Your task to perform on an android device: Open Reddit.com Image 0: 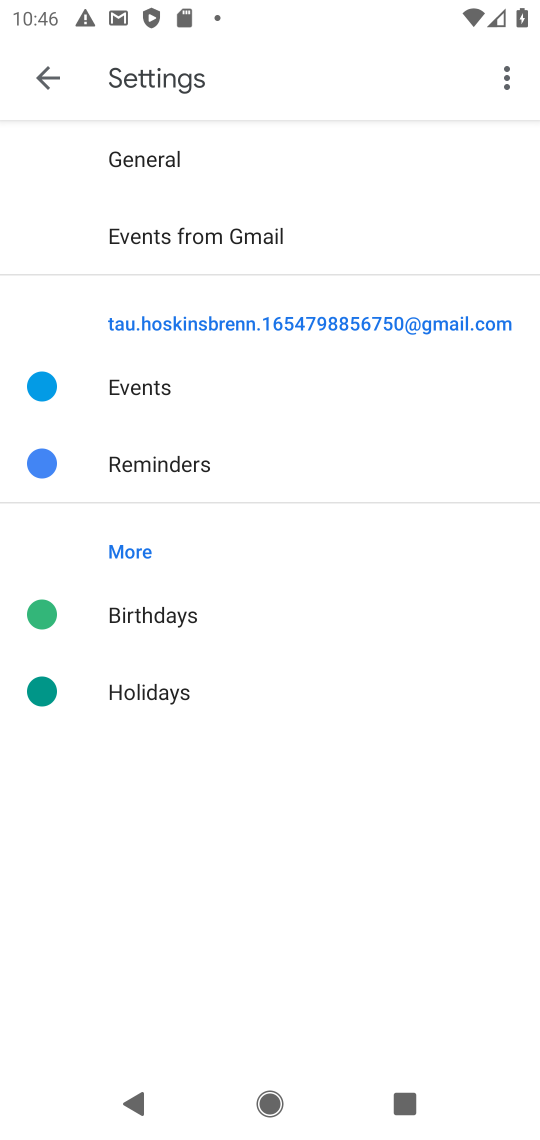
Step 0: press home button
Your task to perform on an android device: Open Reddit.com Image 1: 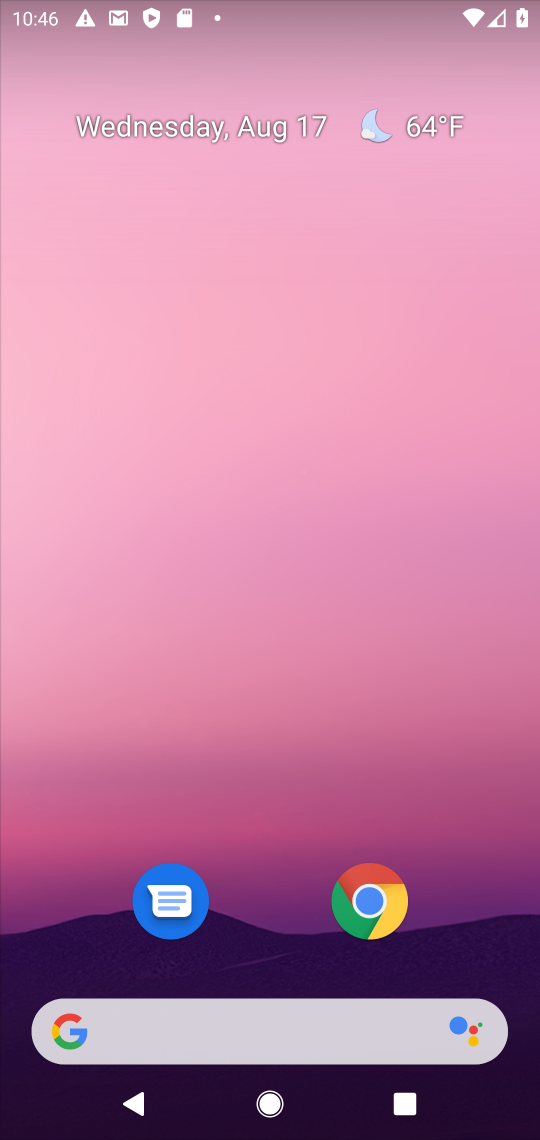
Step 1: click (69, 1034)
Your task to perform on an android device: Open Reddit.com Image 2: 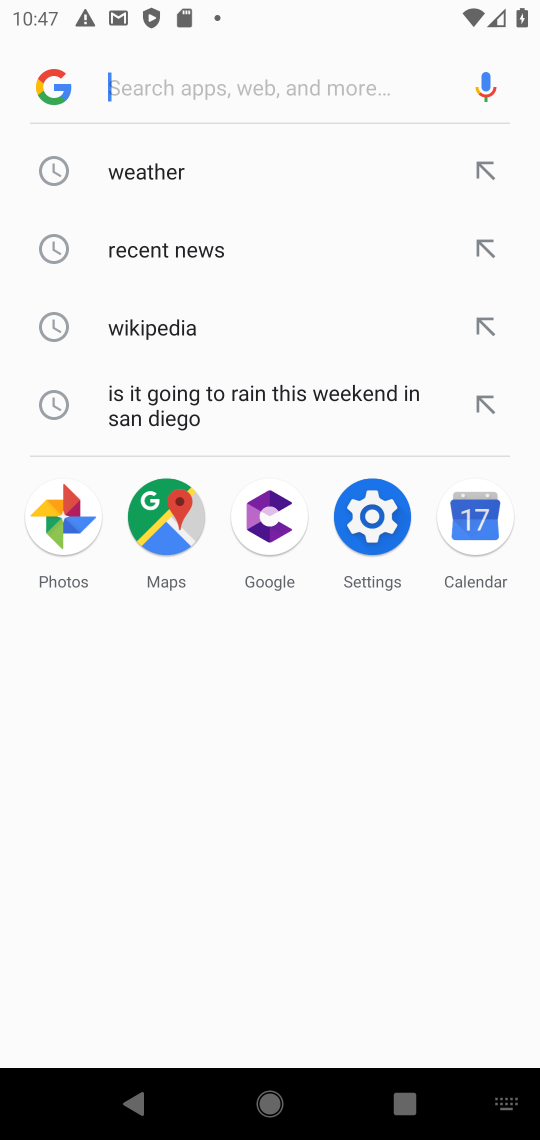
Step 2: type " Reddit.com"
Your task to perform on an android device: Open Reddit.com Image 3: 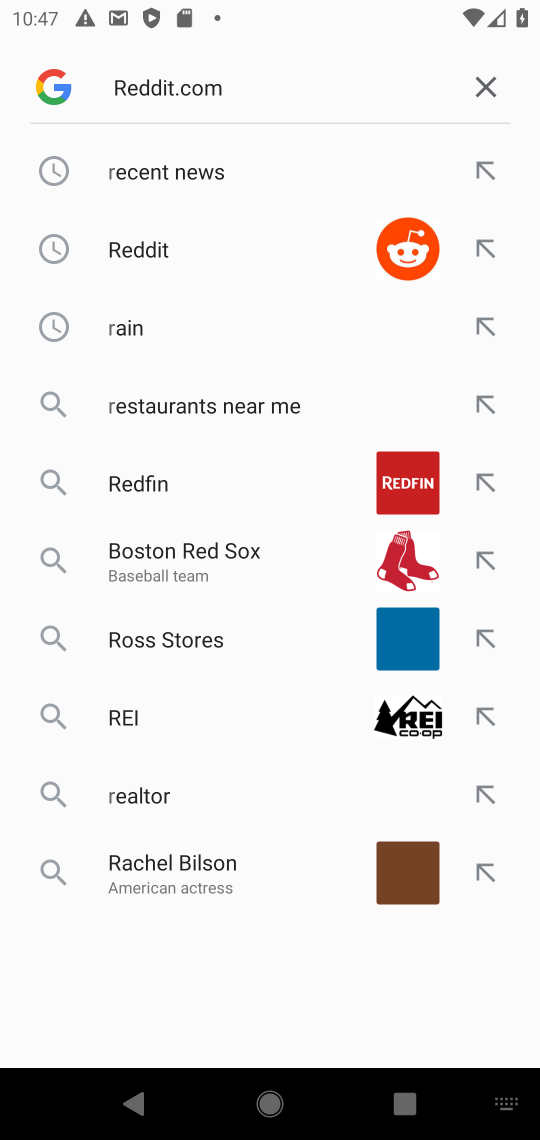
Step 3: press enter
Your task to perform on an android device: Open Reddit.com Image 4: 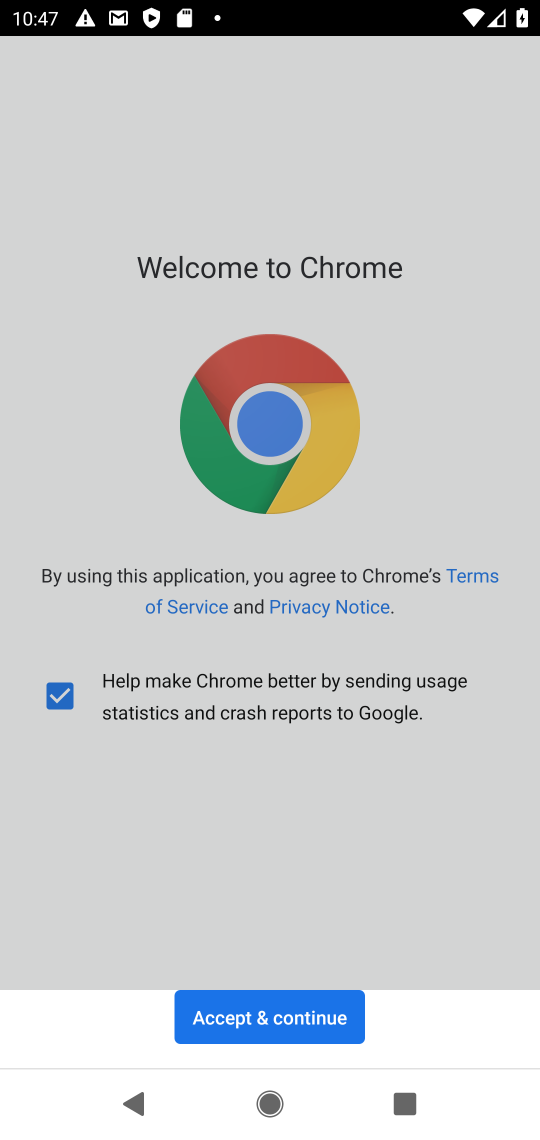
Step 4: click (264, 1014)
Your task to perform on an android device: Open Reddit.com Image 5: 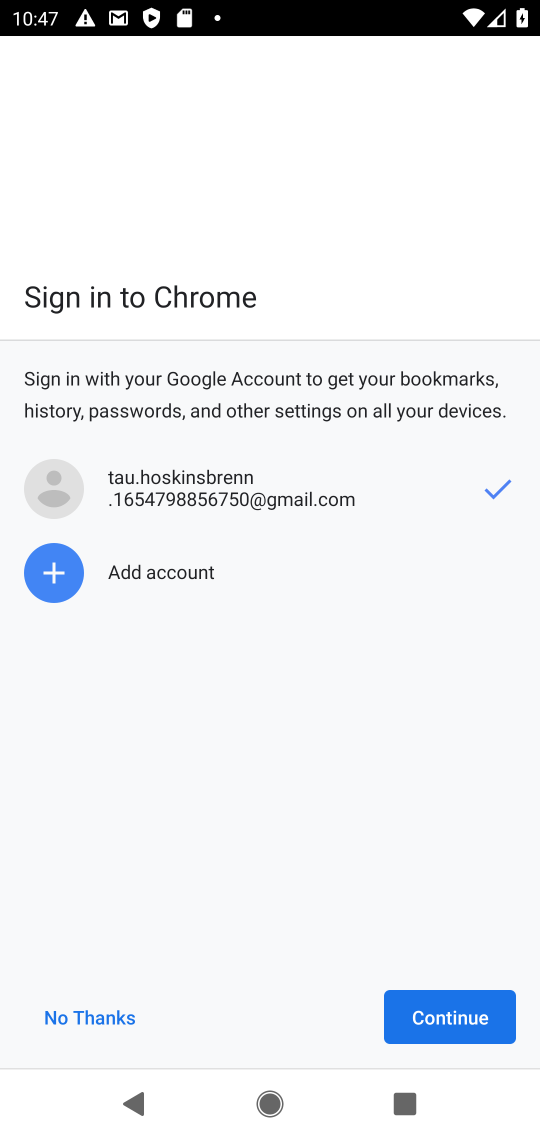
Step 5: click (445, 1017)
Your task to perform on an android device: Open Reddit.com Image 6: 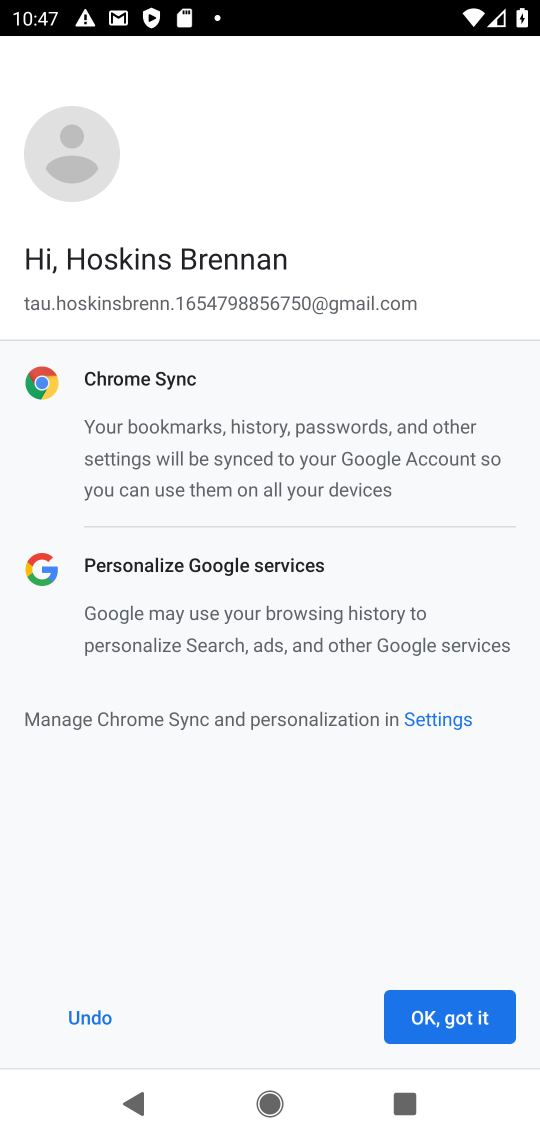
Step 6: click (385, 1038)
Your task to perform on an android device: Open Reddit.com Image 7: 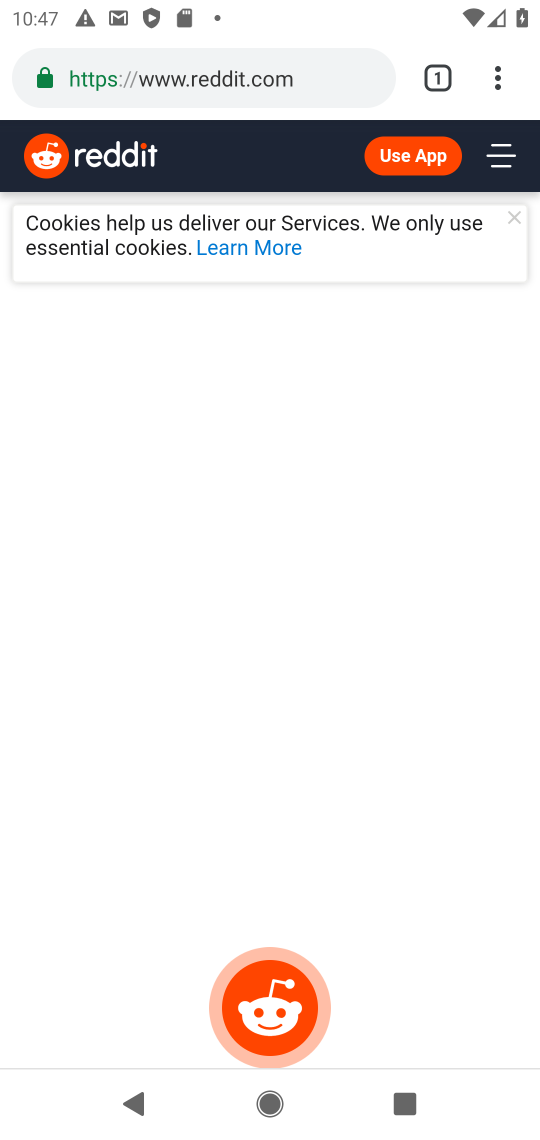
Step 7: task complete